Your task to perform on an android device: find which apps use the phone's location Image 0: 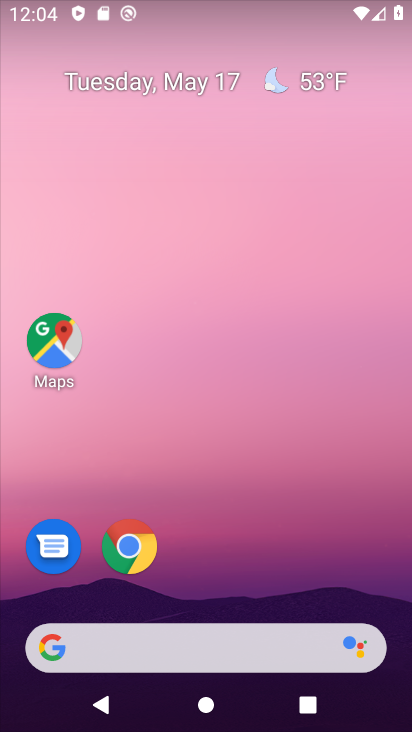
Step 0: drag from (142, 641) to (286, 158)
Your task to perform on an android device: find which apps use the phone's location Image 1: 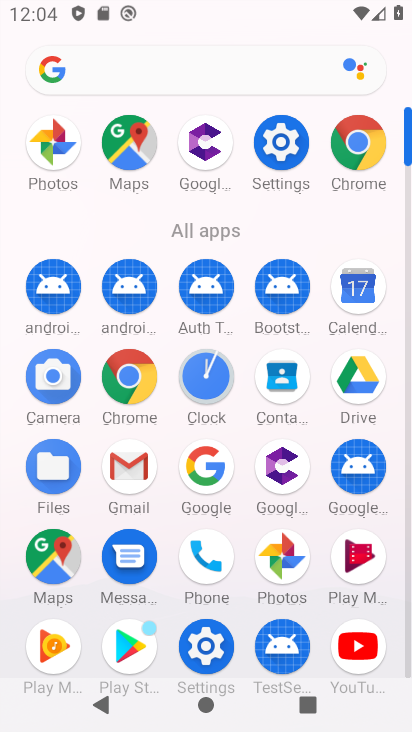
Step 1: click (284, 142)
Your task to perform on an android device: find which apps use the phone's location Image 2: 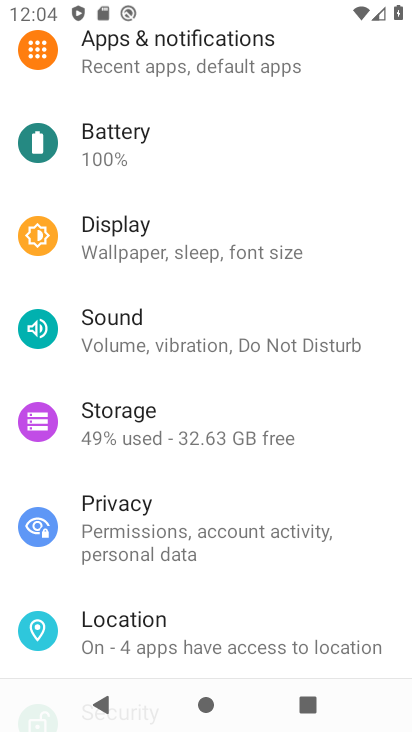
Step 2: click (132, 615)
Your task to perform on an android device: find which apps use the phone's location Image 3: 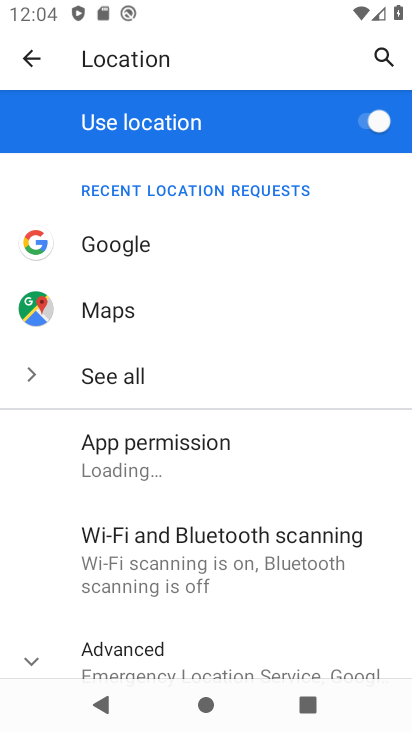
Step 3: drag from (156, 587) to (304, 162)
Your task to perform on an android device: find which apps use the phone's location Image 4: 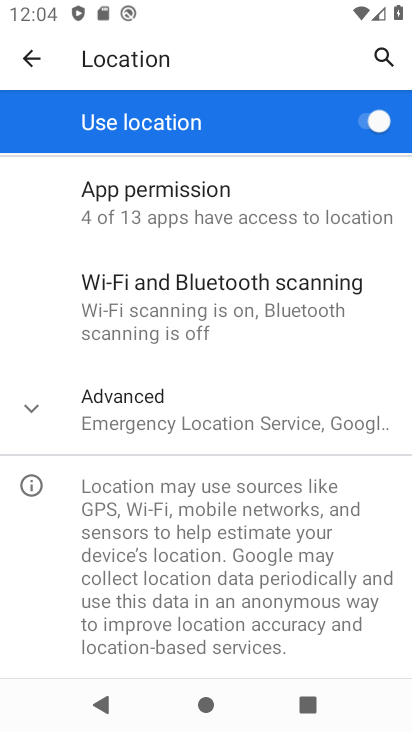
Step 4: click (183, 204)
Your task to perform on an android device: find which apps use the phone's location Image 5: 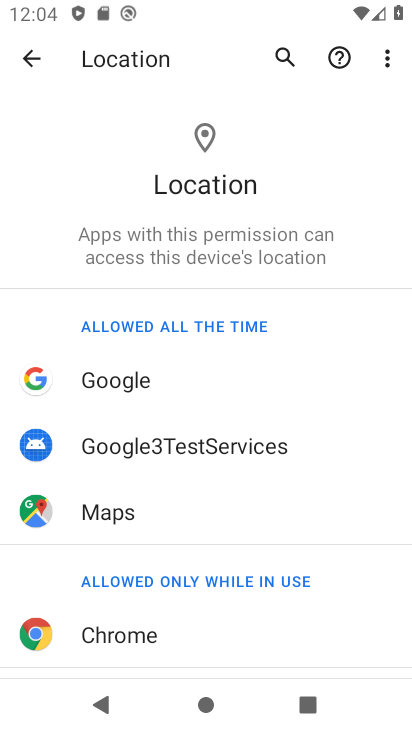
Step 5: drag from (198, 477) to (310, 92)
Your task to perform on an android device: find which apps use the phone's location Image 6: 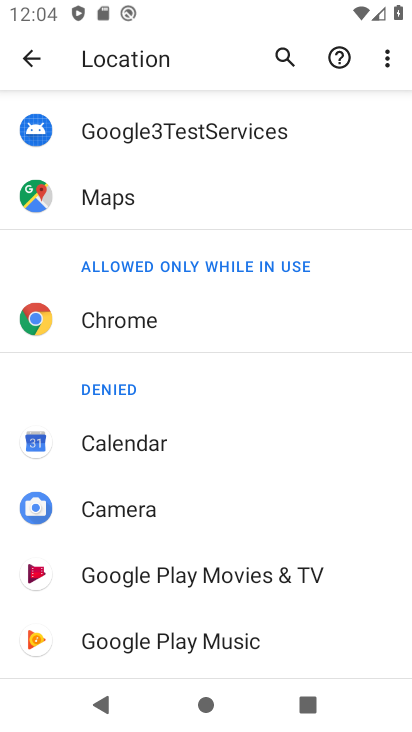
Step 6: drag from (198, 505) to (314, 98)
Your task to perform on an android device: find which apps use the phone's location Image 7: 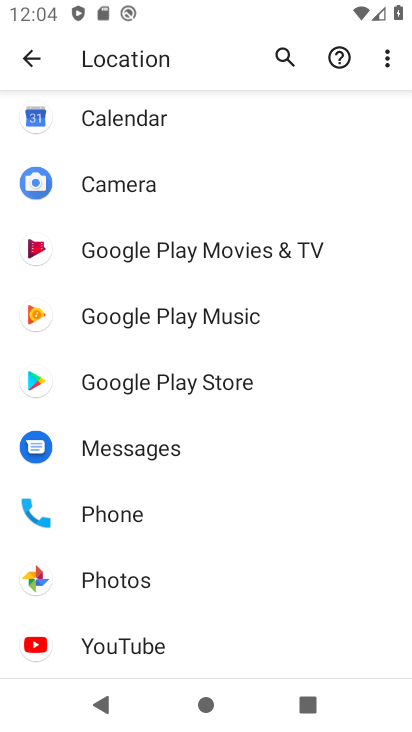
Step 7: click (135, 502)
Your task to perform on an android device: find which apps use the phone's location Image 8: 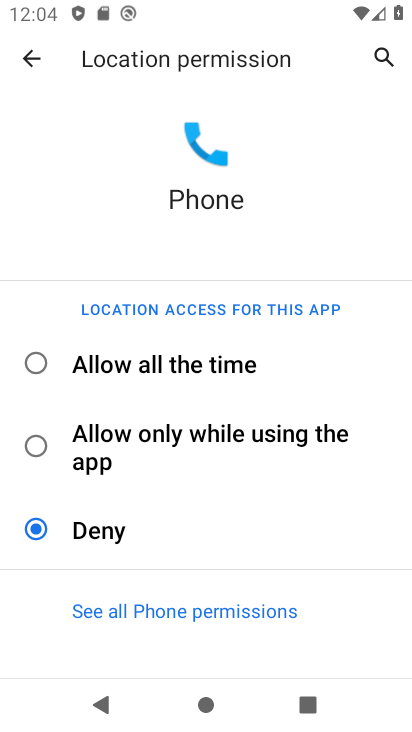
Step 8: task complete